Your task to perform on an android device: Open sound settings Image 0: 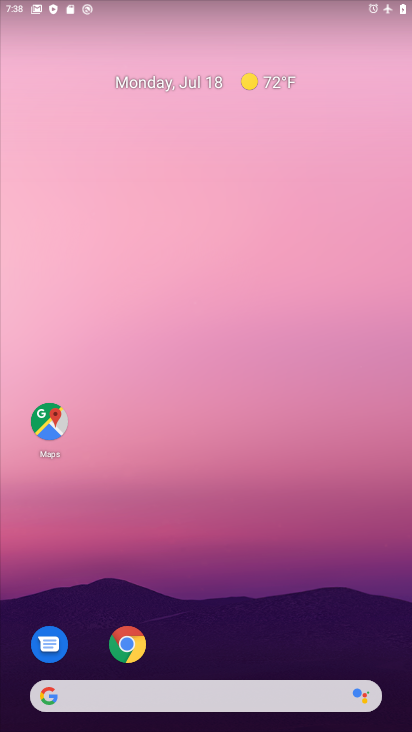
Step 0: drag from (388, 637) to (189, 56)
Your task to perform on an android device: Open sound settings Image 1: 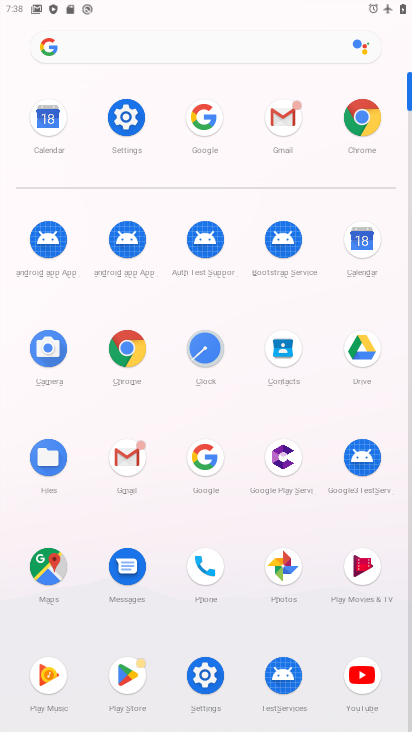
Step 1: click (204, 668)
Your task to perform on an android device: Open sound settings Image 2: 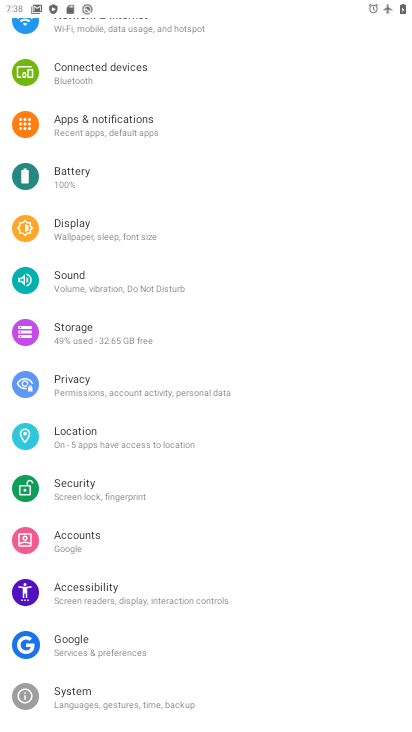
Step 2: click (100, 287)
Your task to perform on an android device: Open sound settings Image 3: 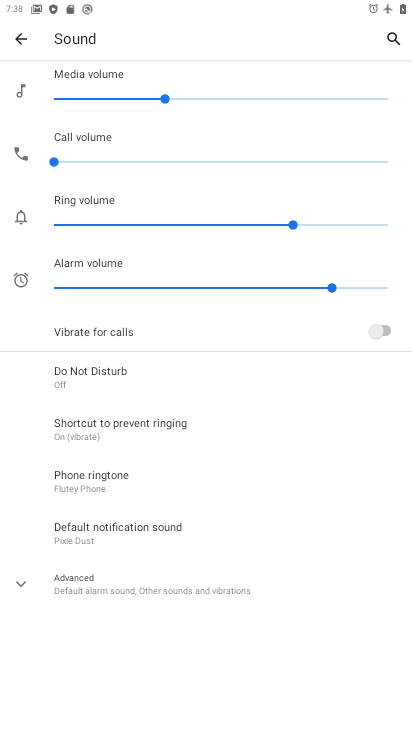
Step 3: task complete